Your task to perform on an android device: turn off notifications in google photos Image 0: 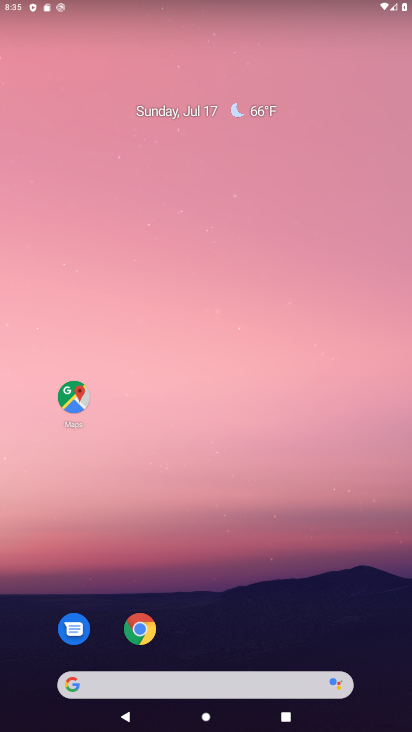
Step 0: press home button
Your task to perform on an android device: turn off notifications in google photos Image 1: 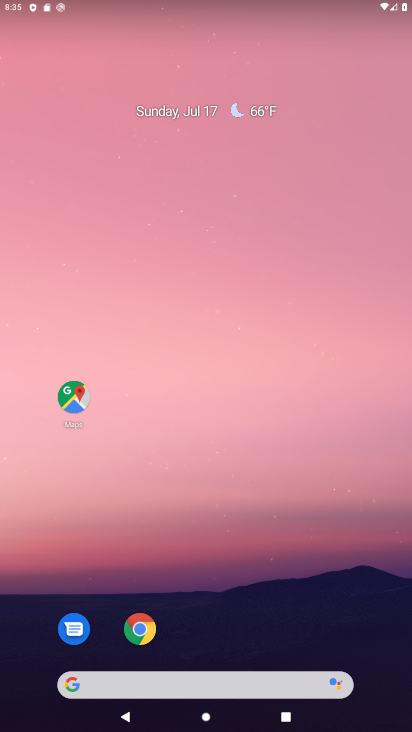
Step 1: drag from (215, 649) to (262, 3)
Your task to perform on an android device: turn off notifications in google photos Image 2: 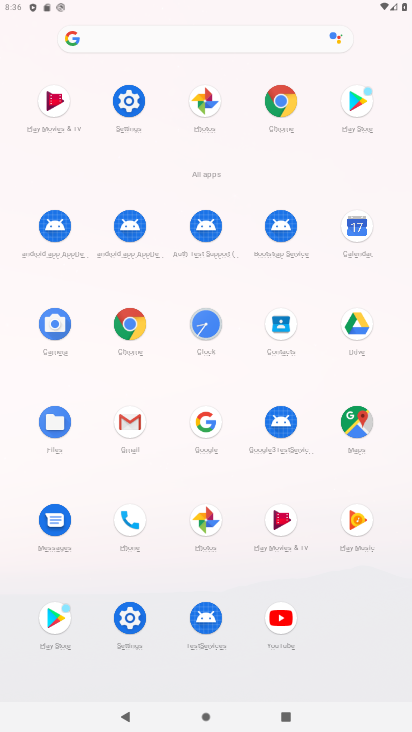
Step 2: click (210, 516)
Your task to perform on an android device: turn off notifications in google photos Image 3: 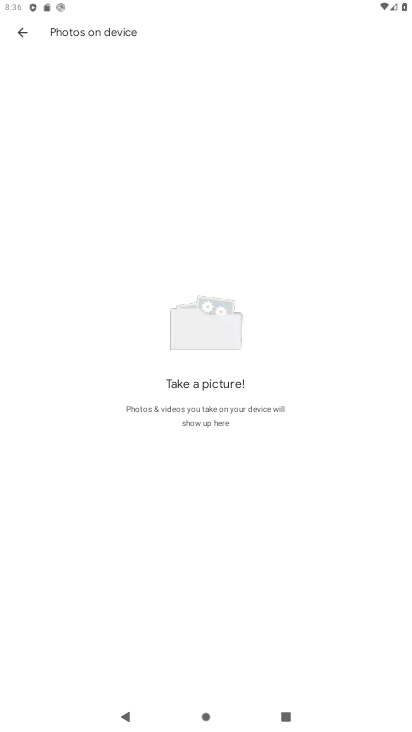
Step 3: click (17, 35)
Your task to perform on an android device: turn off notifications in google photos Image 4: 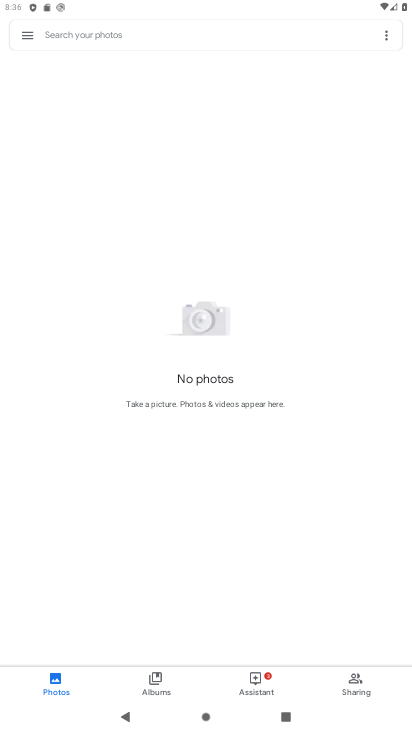
Step 4: click (29, 33)
Your task to perform on an android device: turn off notifications in google photos Image 5: 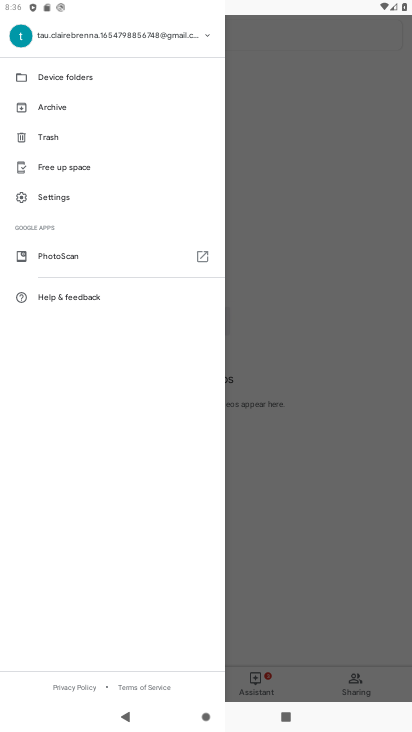
Step 5: click (43, 19)
Your task to perform on an android device: turn off notifications in google photos Image 6: 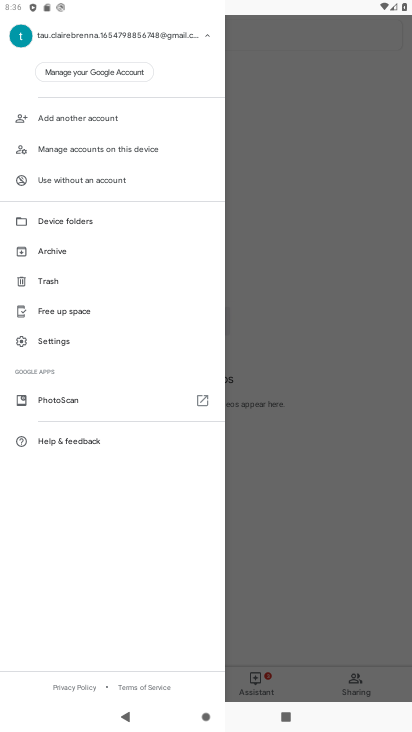
Step 6: press back button
Your task to perform on an android device: turn off notifications in google photos Image 7: 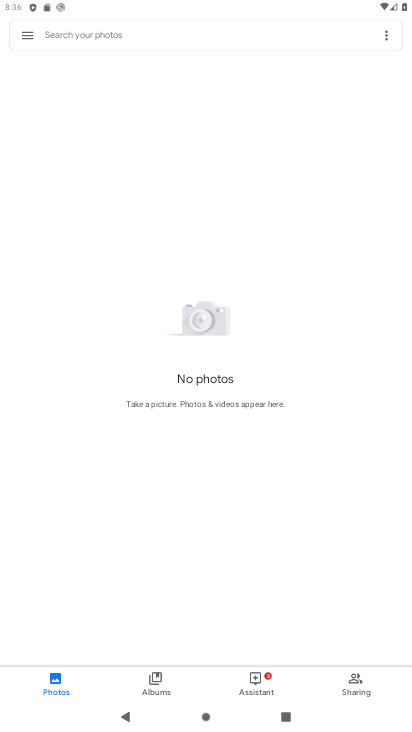
Step 7: click (28, 29)
Your task to perform on an android device: turn off notifications in google photos Image 8: 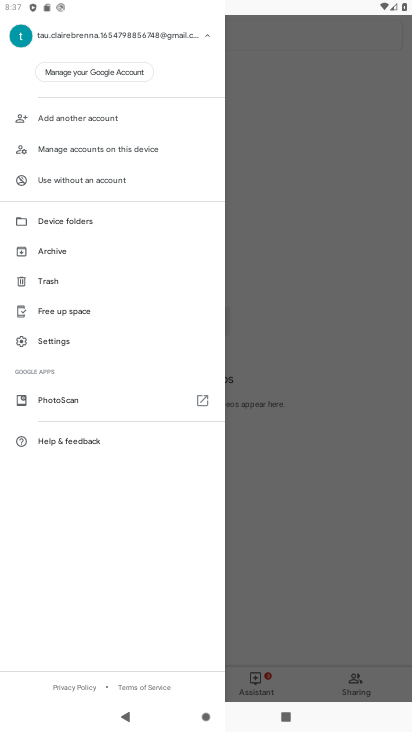
Step 8: click (58, 336)
Your task to perform on an android device: turn off notifications in google photos Image 9: 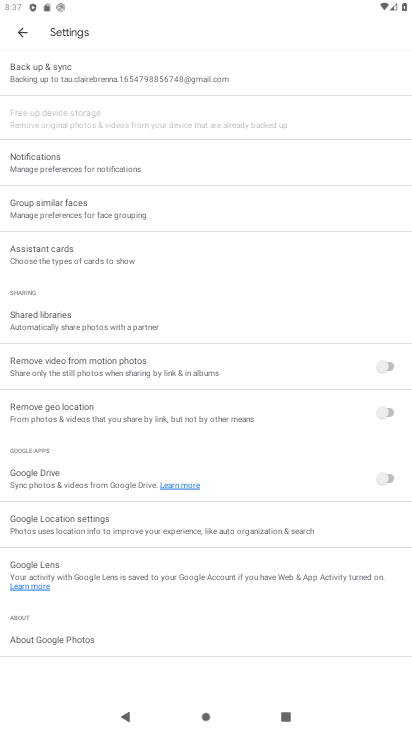
Step 9: click (66, 163)
Your task to perform on an android device: turn off notifications in google photos Image 10: 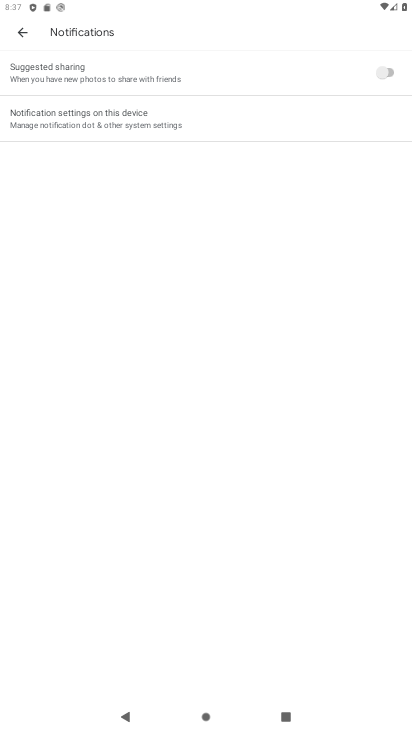
Step 10: click (167, 123)
Your task to perform on an android device: turn off notifications in google photos Image 11: 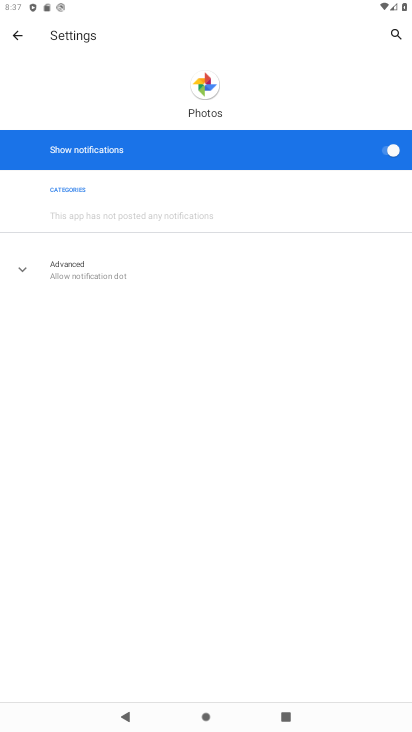
Step 11: click (386, 154)
Your task to perform on an android device: turn off notifications in google photos Image 12: 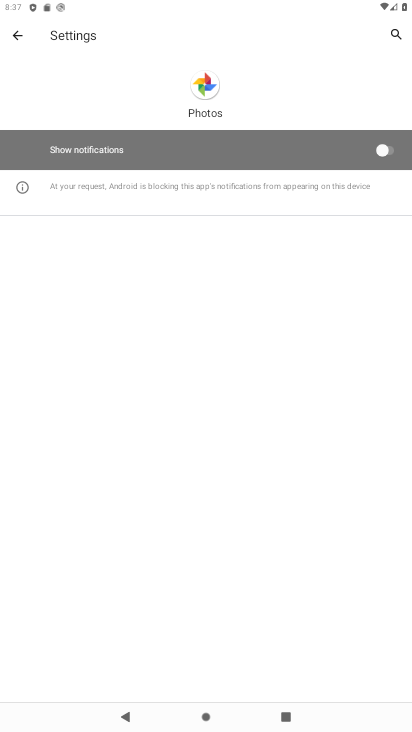
Step 12: task complete